Your task to perform on an android device: When is my next meeting? Image 0: 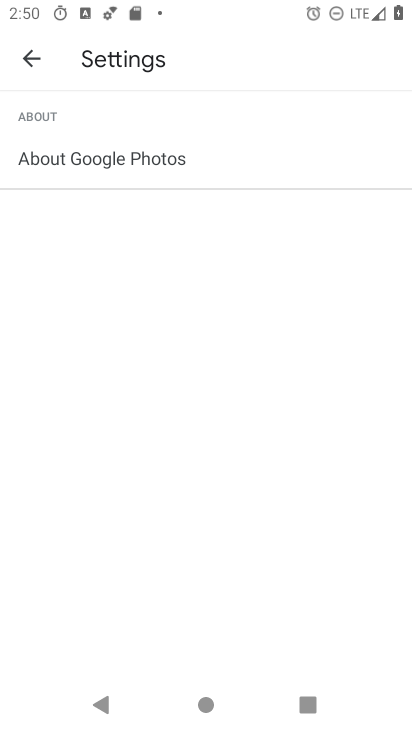
Step 0: press home button
Your task to perform on an android device: When is my next meeting? Image 1: 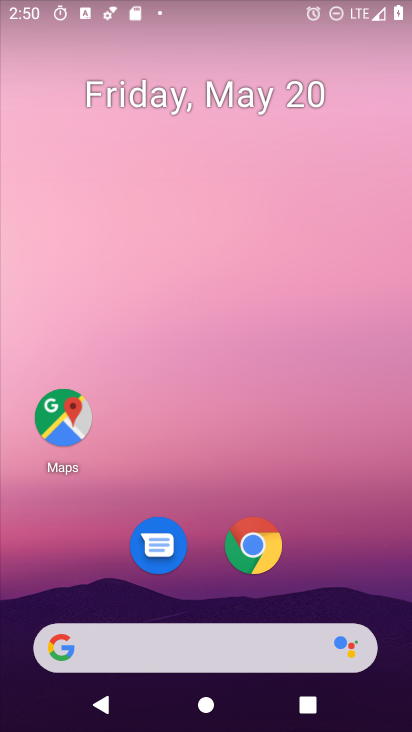
Step 1: drag from (244, 616) to (268, 15)
Your task to perform on an android device: When is my next meeting? Image 2: 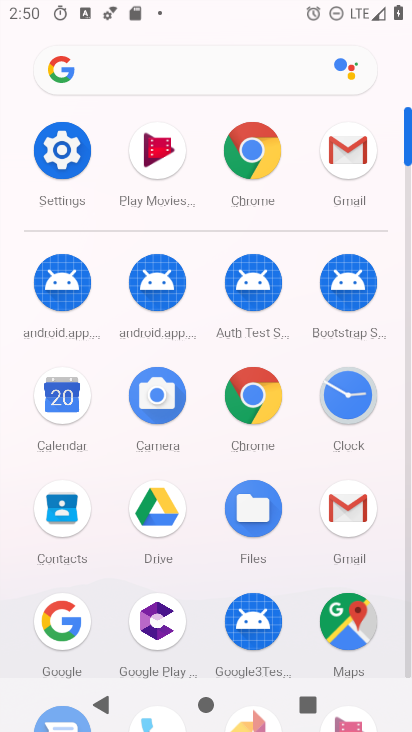
Step 2: click (255, 384)
Your task to perform on an android device: When is my next meeting? Image 3: 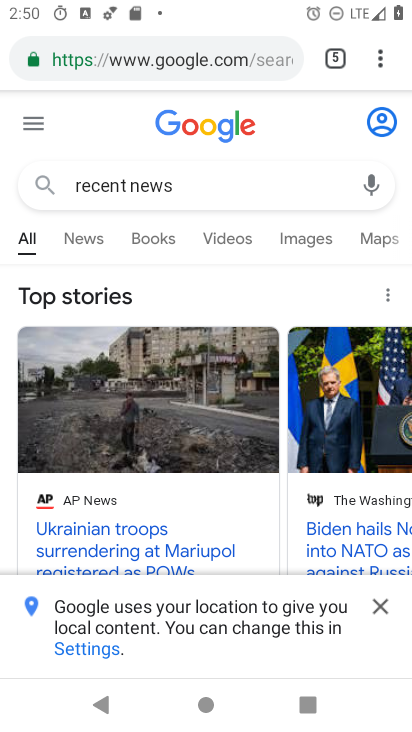
Step 3: press home button
Your task to perform on an android device: When is my next meeting? Image 4: 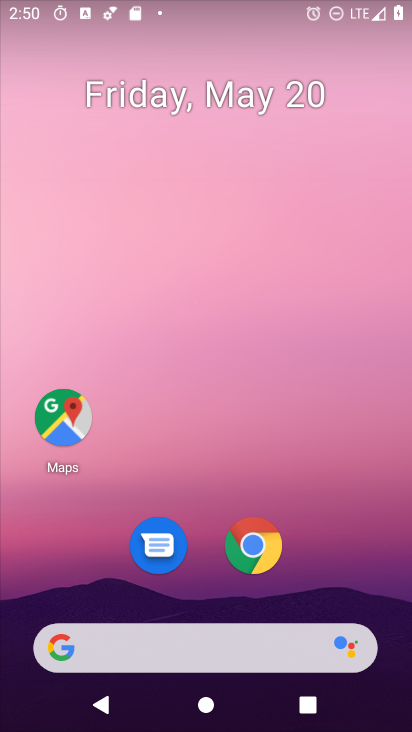
Step 4: drag from (146, 621) to (228, 4)
Your task to perform on an android device: When is my next meeting? Image 5: 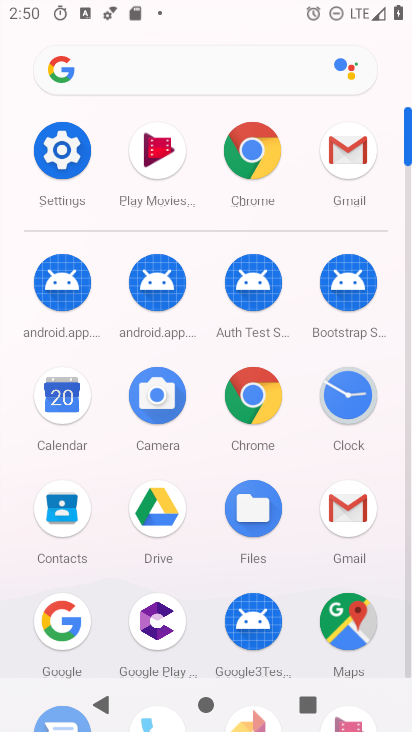
Step 5: click (63, 405)
Your task to perform on an android device: When is my next meeting? Image 6: 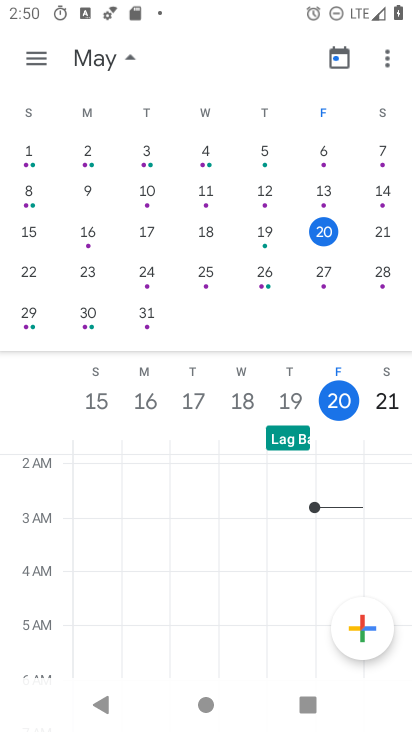
Step 6: drag from (363, 235) to (46, 275)
Your task to perform on an android device: When is my next meeting? Image 7: 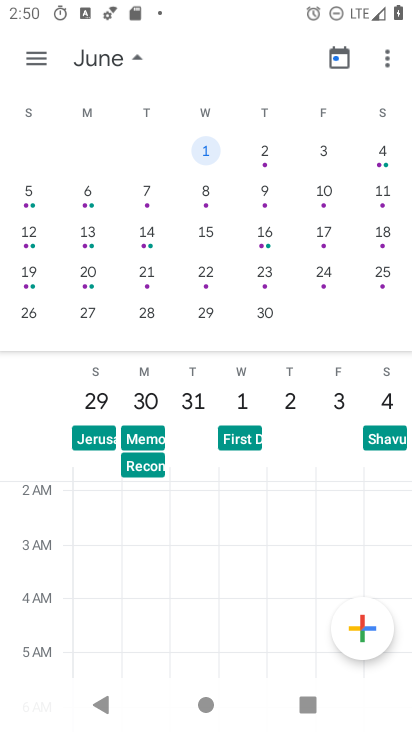
Step 7: drag from (70, 231) to (376, 266)
Your task to perform on an android device: When is my next meeting? Image 8: 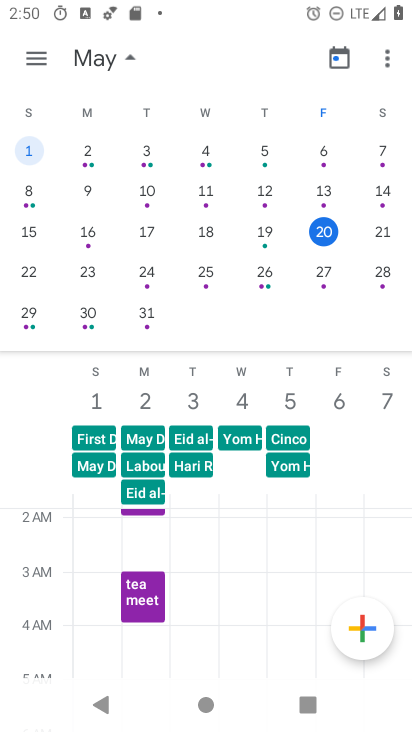
Step 8: click (326, 229)
Your task to perform on an android device: When is my next meeting? Image 9: 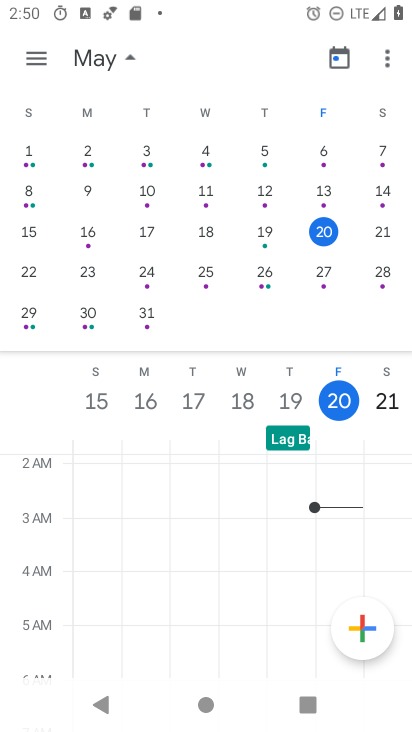
Step 9: task complete